Your task to perform on an android device: check google app version Image 0: 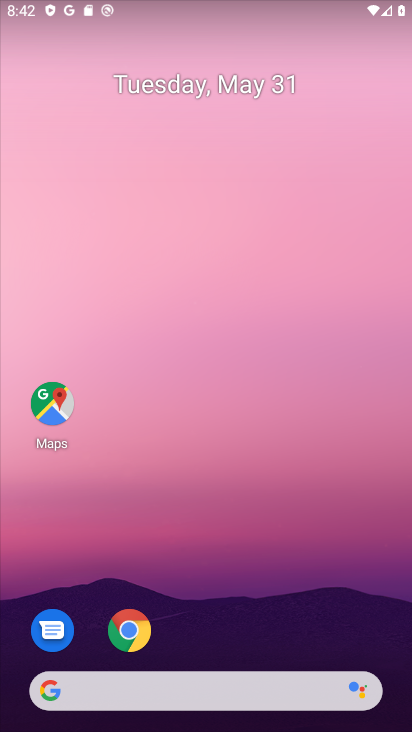
Step 0: drag from (110, 726) to (138, 75)
Your task to perform on an android device: check google app version Image 1: 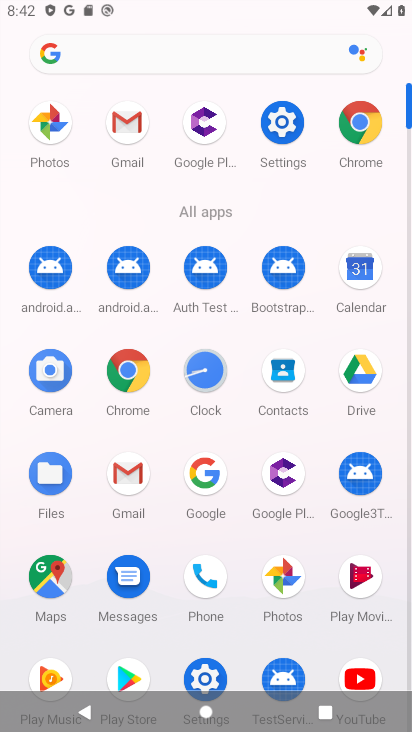
Step 1: click (205, 473)
Your task to perform on an android device: check google app version Image 2: 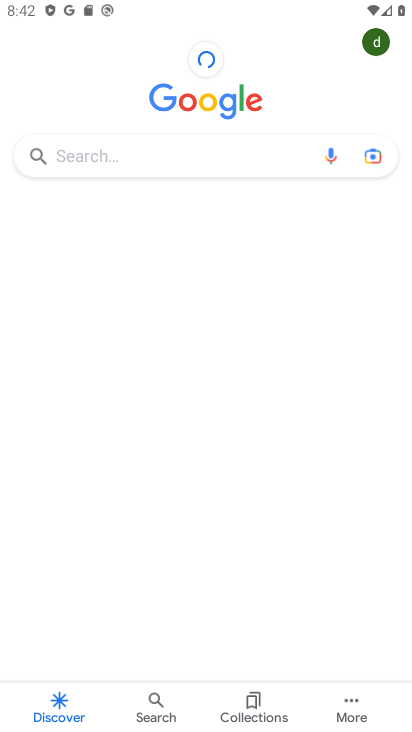
Step 2: click (353, 713)
Your task to perform on an android device: check google app version Image 3: 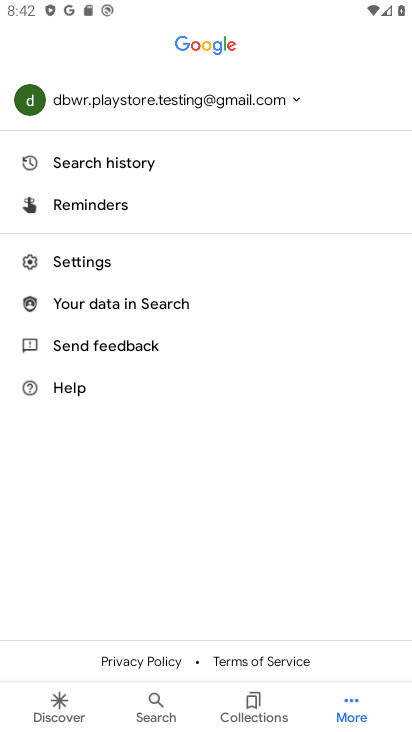
Step 3: click (95, 269)
Your task to perform on an android device: check google app version Image 4: 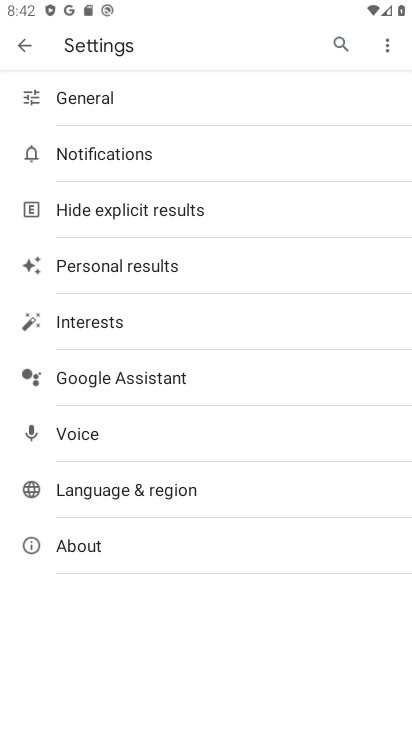
Step 4: click (81, 551)
Your task to perform on an android device: check google app version Image 5: 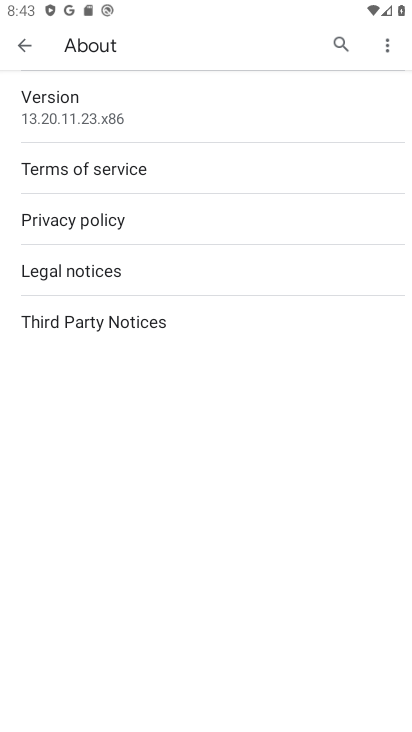
Step 5: task complete